Your task to perform on an android device: Open Amazon Image 0: 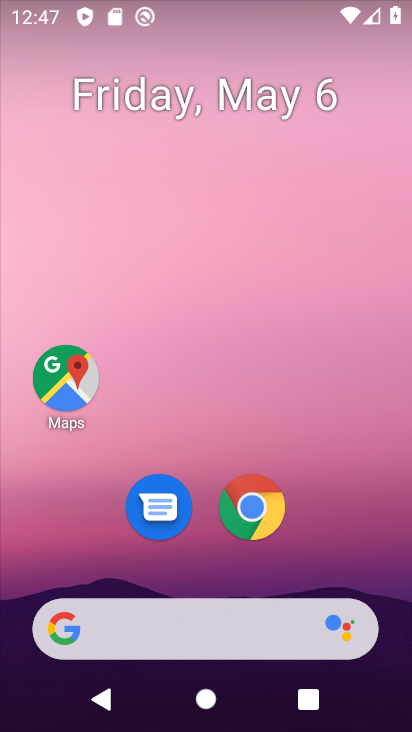
Step 0: click (241, 525)
Your task to perform on an android device: Open Amazon Image 1: 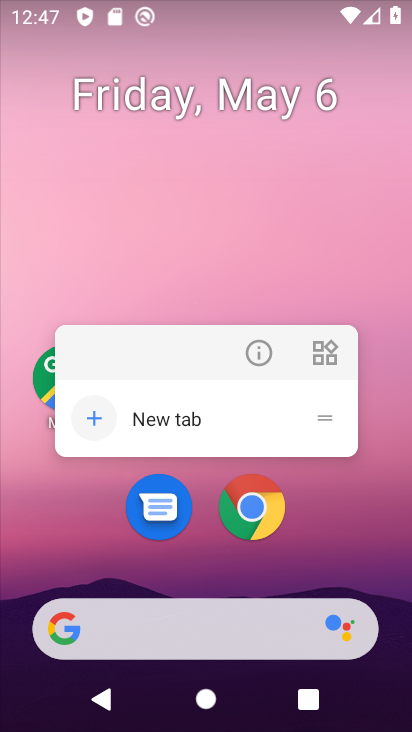
Step 1: click (253, 507)
Your task to perform on an android device: Open Amazon Image 2: 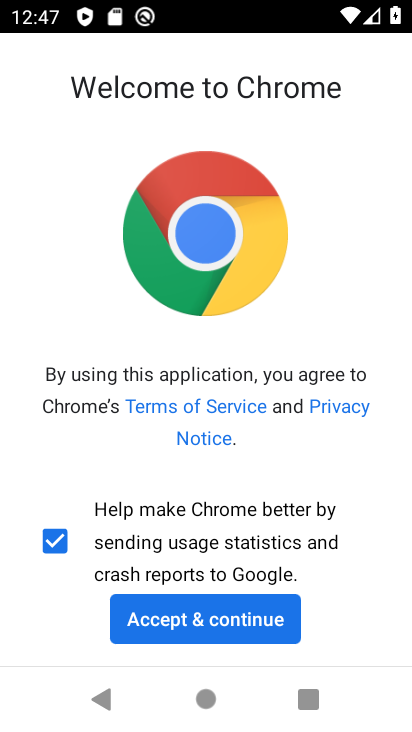
Step 2: click (255, 638)
Your task to perform on an android device: Open Amazon Image 3: 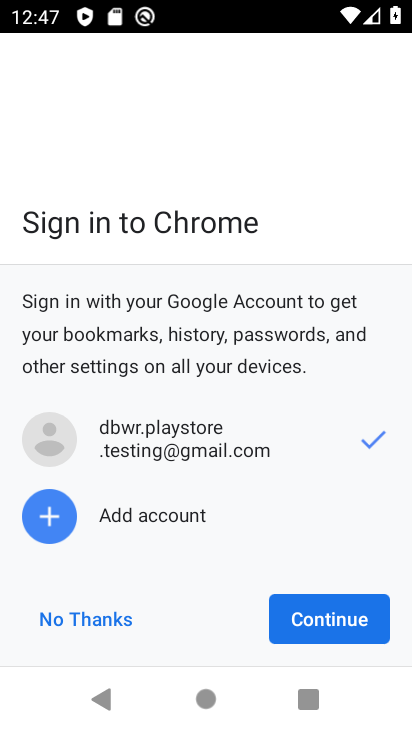
Step 3: click (315, 619)
Your task to perform on an android device: Open Amazon Image 4: 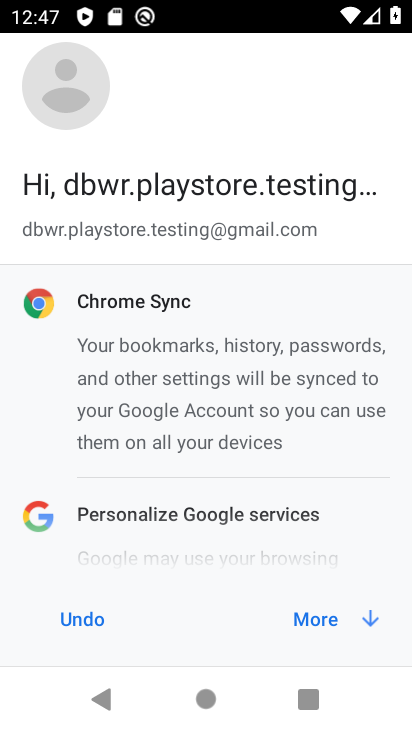
Step 4: click (345, 628)
Your task to perform on an android device: Open Amazon Image 5: 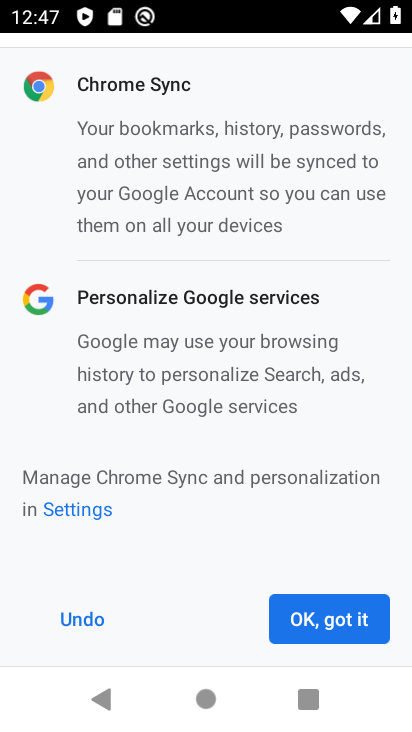
Step 5: click (345, 628)
Your task to perform on an android device: Open Amazon Image 6: 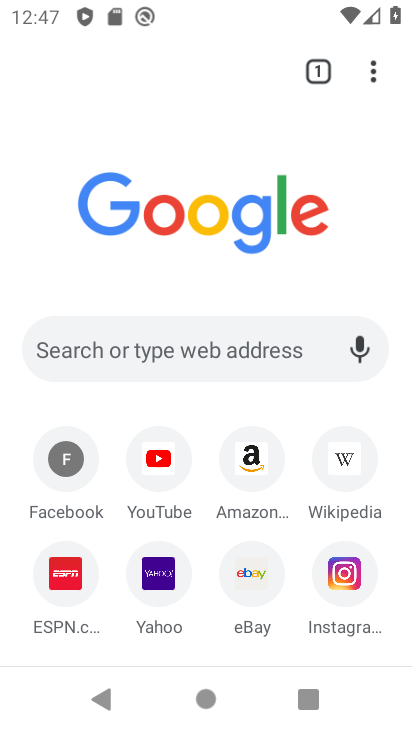
Step 6: click (260, 462)
Your task to perform on an android device: Open Amazon Image 7: 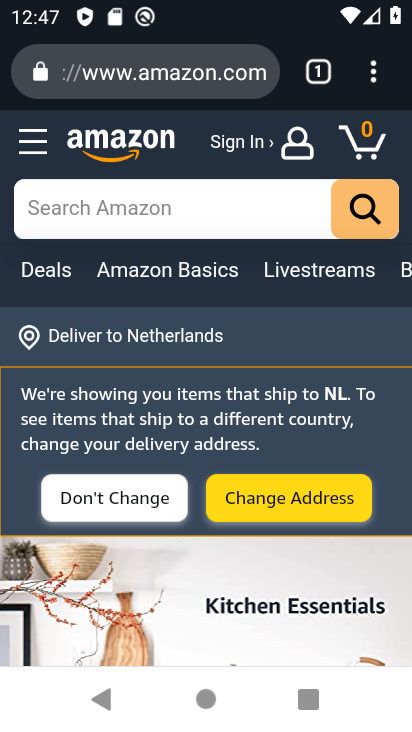
Step 7: task complete